Your task to perform on an android device: Search for Italian restaurants on Maps Image 0: 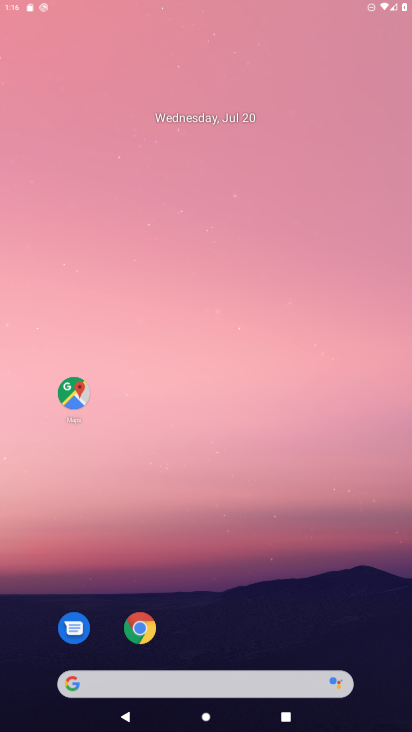
Step 0: click (288, 20)
Your task to perform on an android device: Search for Italian restaurants on Maps Image 1: 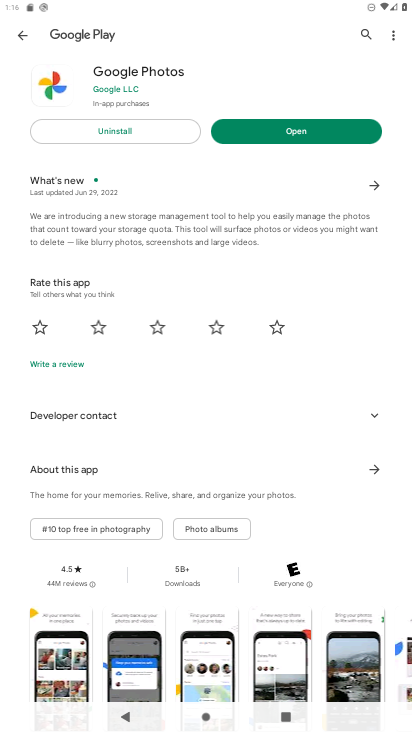
Step 1: press home button
Your task to perform on an android device: Search for Italian restaurants on Maps Image 2: 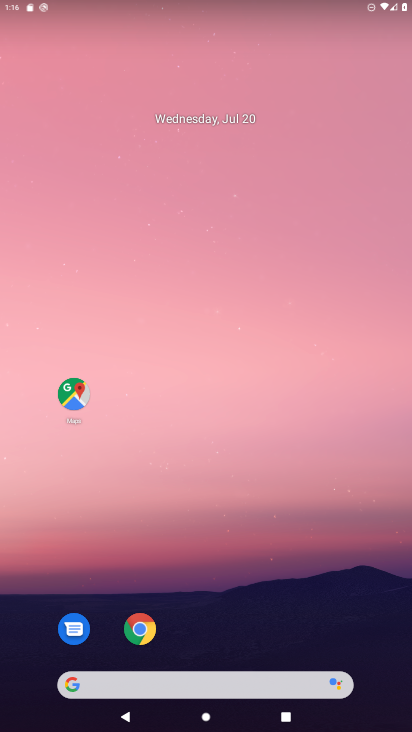
Step 2: click (71, 396)
Your task to perform on an android device: Search for Italian restaurants on Maps Image 3: 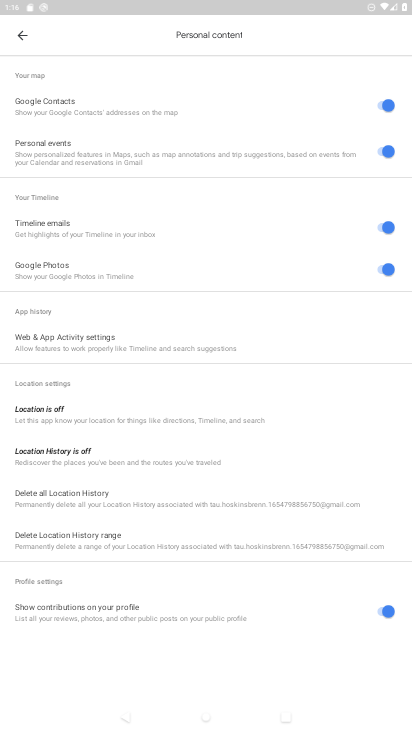
Step 3: click (21, 30)
Your task to perform on an android device: Search for Italian restaurants on Maps Image 4: 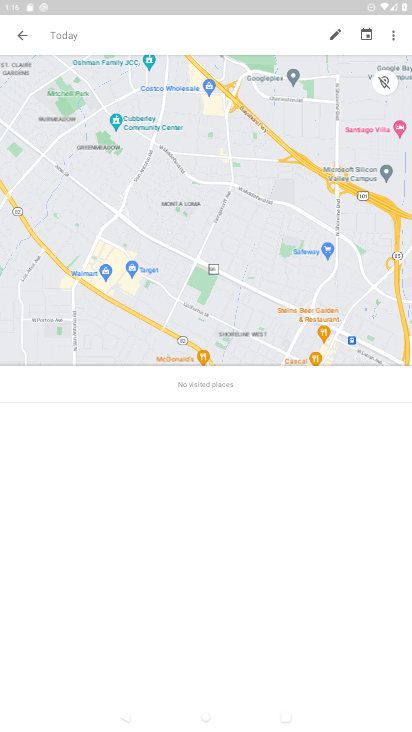
Step 4: click (21, 36)
Your task to perform on an android device: Search for Italian restaurants on Maps Image 5: 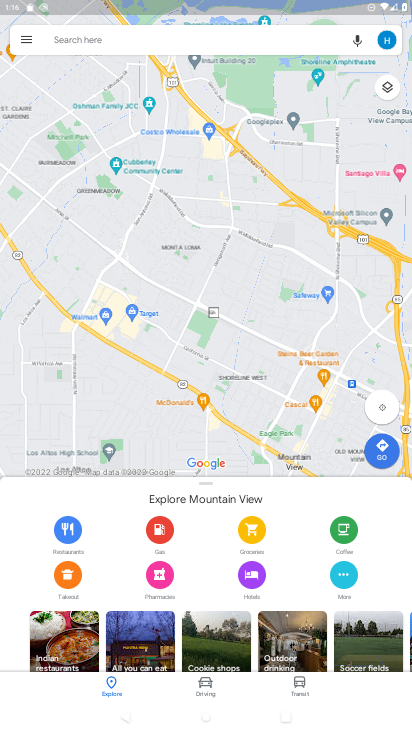
Step 5: click (82, 36)
Your task to perform on an android device: Search for Italian restaurants on Maps Image 6: 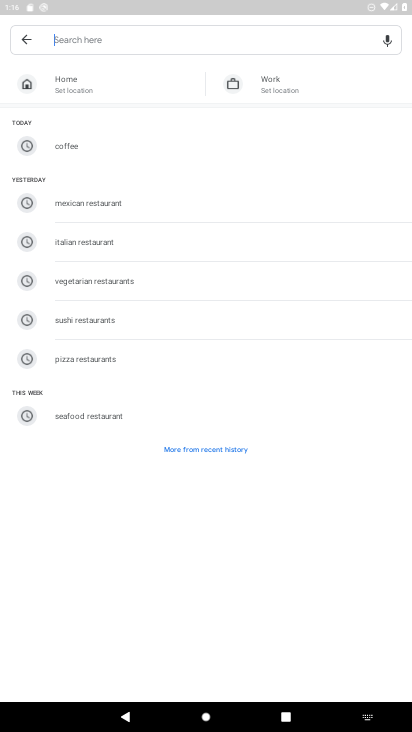
Step 6: click (69, 240)
Your task to perform on an android device: Search for Italian restaurants on Maps Image 7: 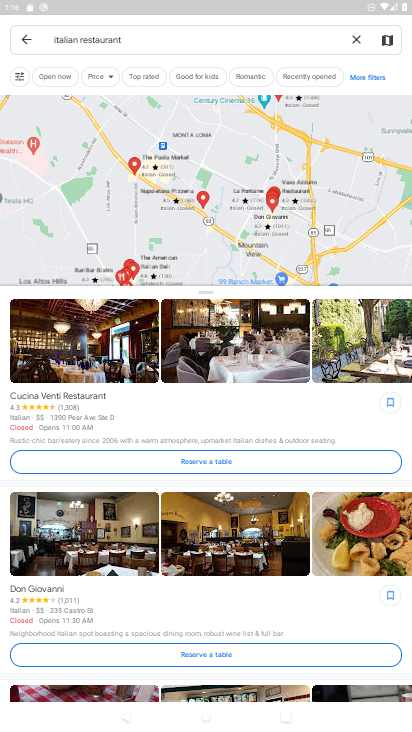
Step 7: task complete